Your task to perform on an android device: all mails in gmail Image 0: 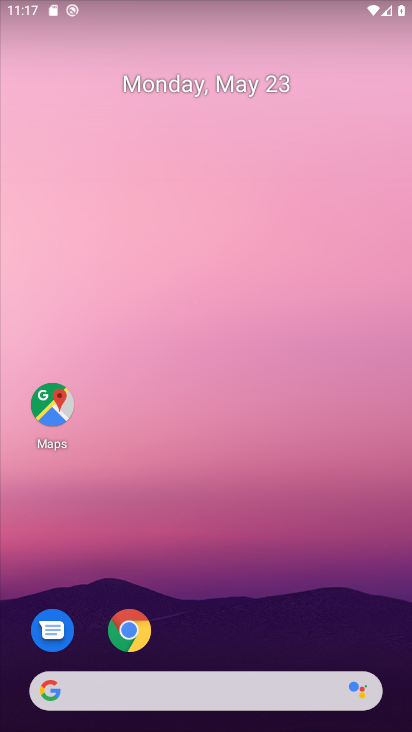
Step 0: drag from (200, 509) to (237, 284)
Your task to perform on an android device: all mails in gmail Image 1: 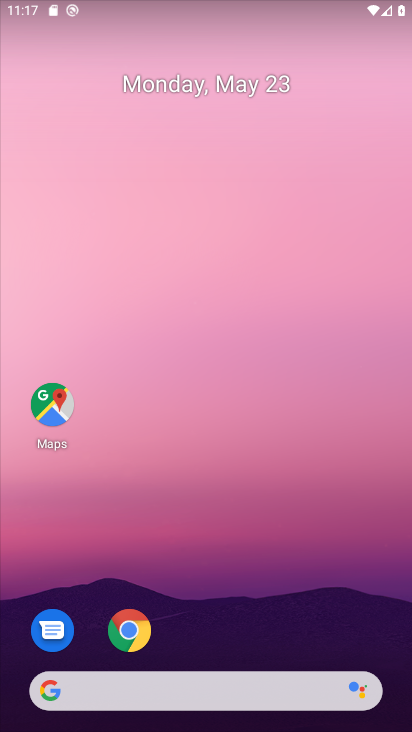
Step 1: drag from (210, 649) to (336, 159)
Your task to perform on an android device: all mails in gmail Image 2: 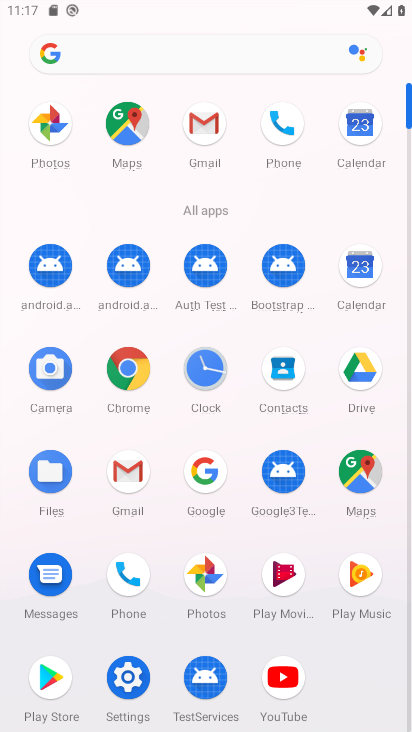
Step 2: click (206, 121)
Your task to perform on an android device: all mails in gmail Image 3: 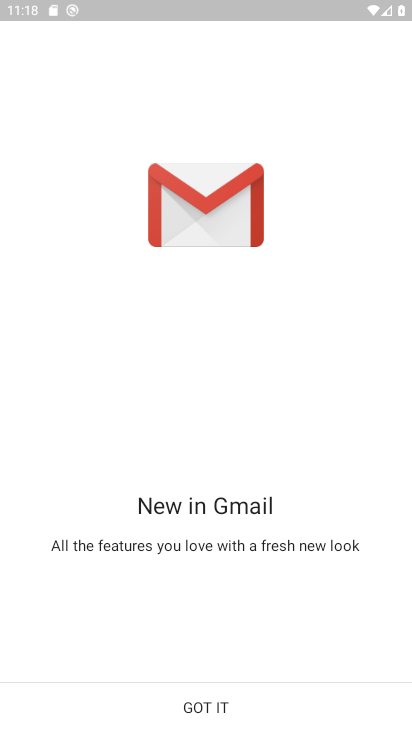
Step 3: click (185, 707)
Your task to perform on an android device: all mails in gmail Image 4: 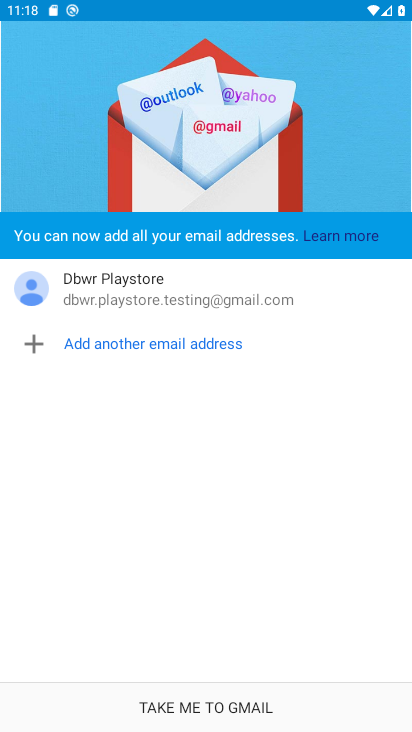
Step 4: click (250, 711)
Your task to perform on an android device: all mails in gmail Image 5: 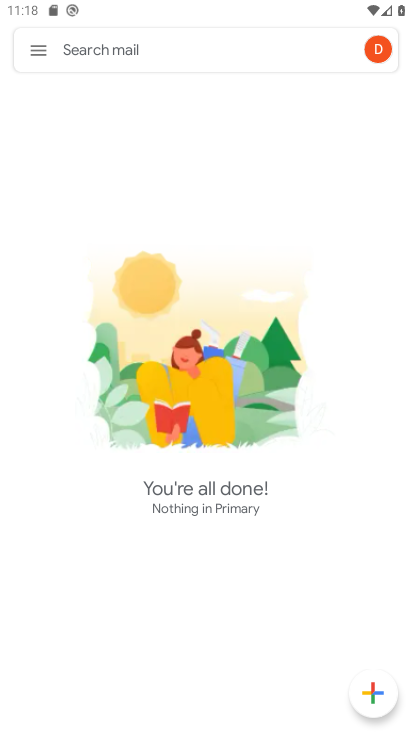
Step 5: click (47, 40)
Your task to perform on an android device: all mails in gmail Image 6: 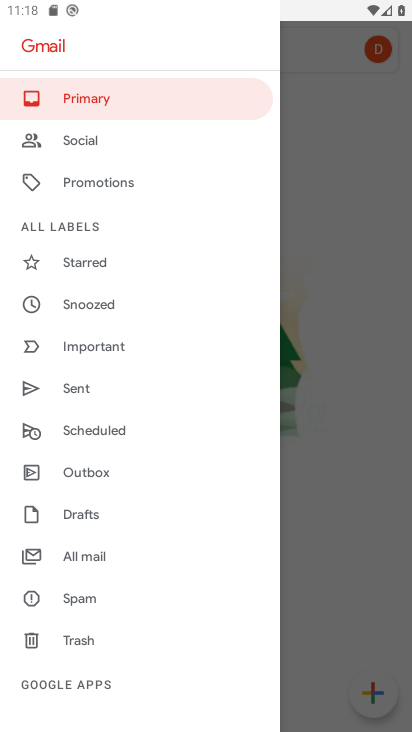
Step 6: click (93, 557)
Your task to perform on an android device: all mails in gmail Image 7: 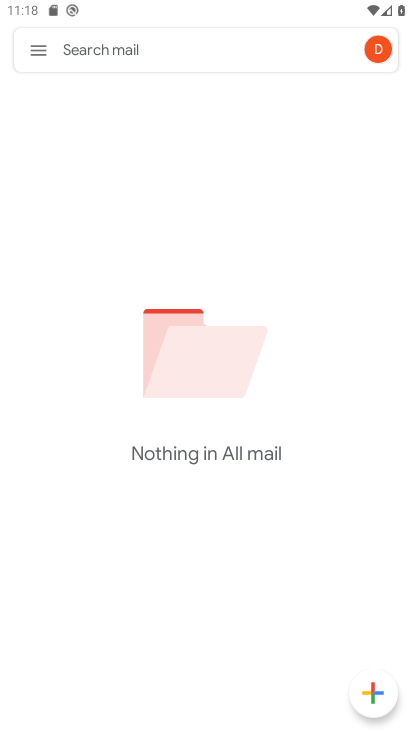
Step 7: task complete